Your task to perform on an android device: open a bookmark in the chrome app Image 0: 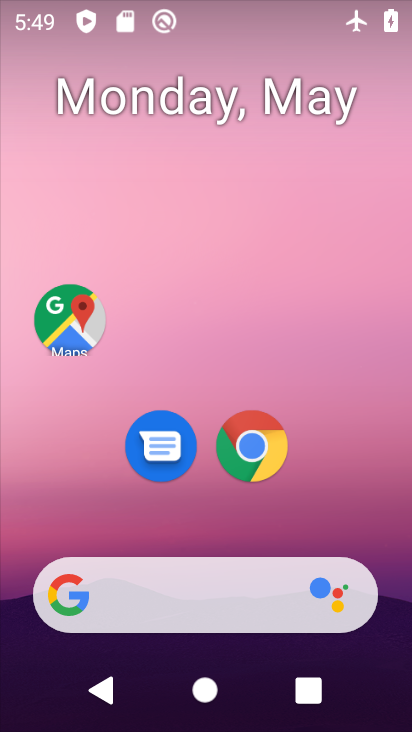
Step 0: click (263, 448)
Your task to perform on an android device: open a bookmark in the chrome app Image 1: 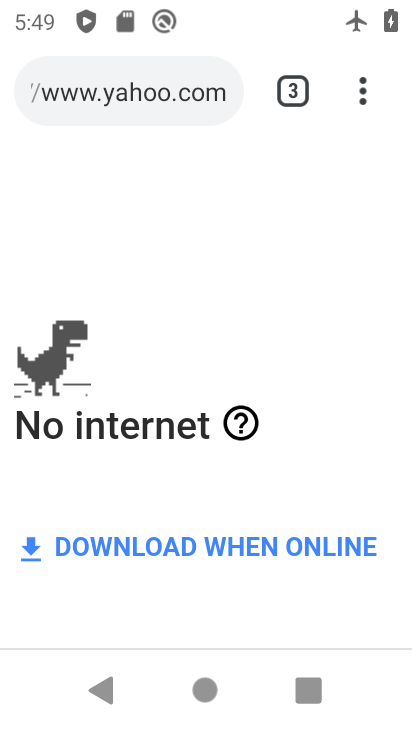
Step 1: click (363, 95)
Your task to perform on an android device: open a bookmark in the chrome app Image 2: 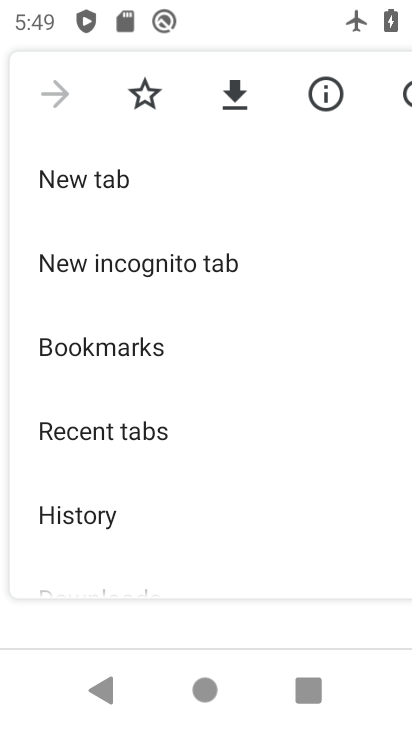
Step 2: click (110, 345)
Your task to perform on an android device: open a bookmark in the chrome app Image 3: 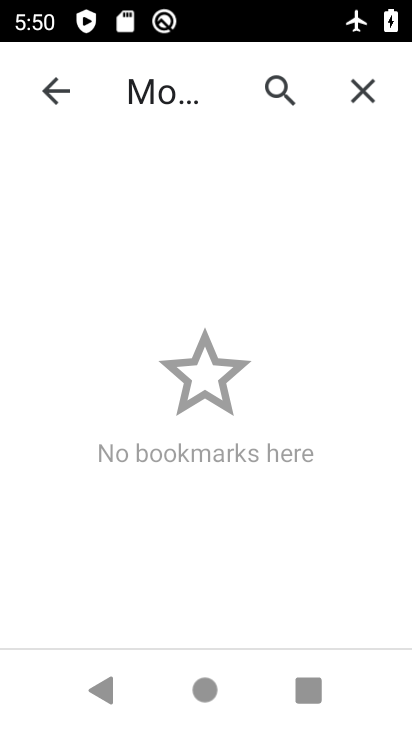
Step 3: task complete